Your task to perform on an android device: set the timer Image 0: 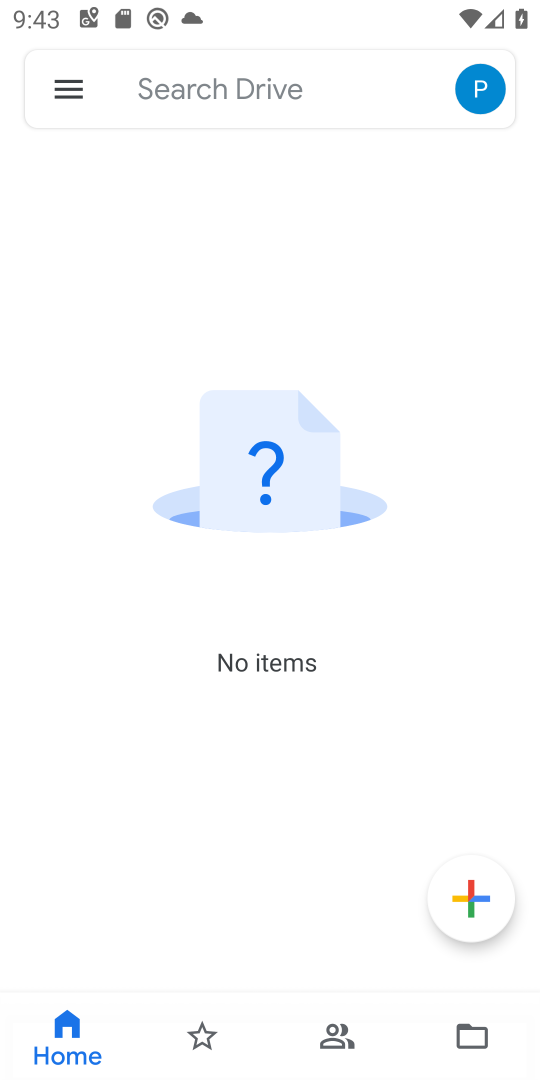
Step 0: press home button
Your task to perform on an android device: set the timer Image 1: 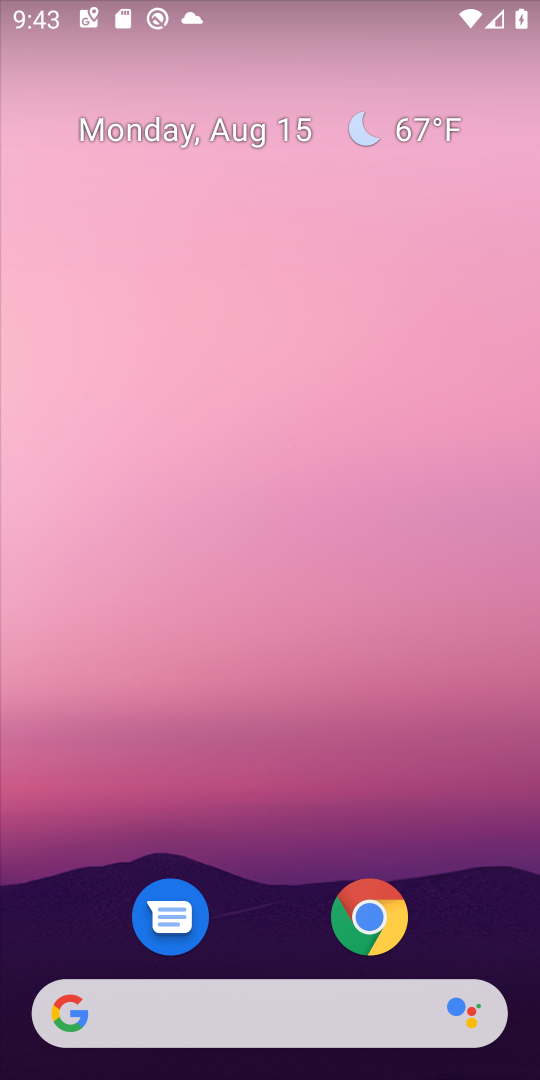
Step 1: drag from (274, 653) to (349, 14)
Your task to perform on an android device: set the timer Image 2: 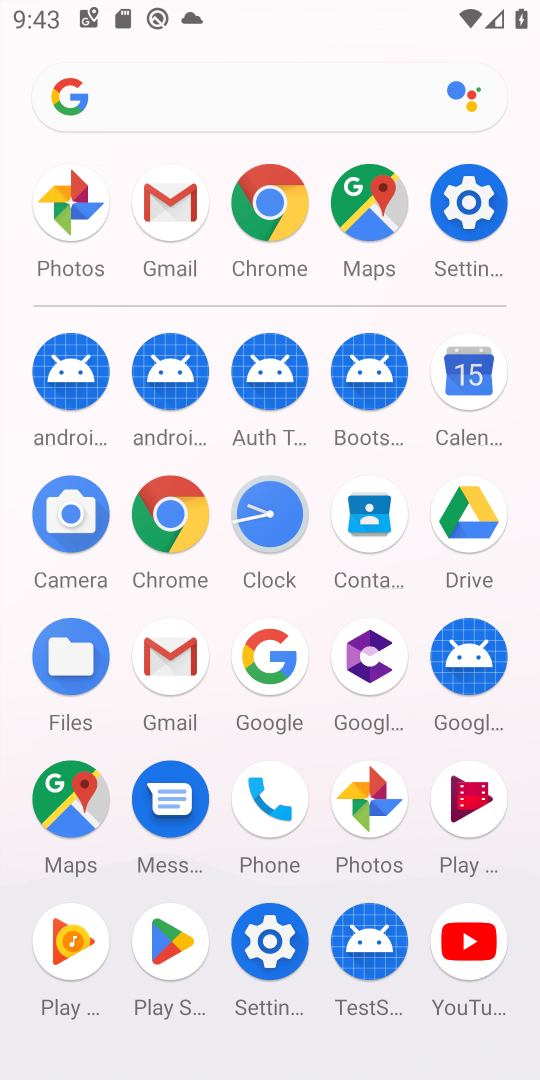
Step 2: click (274, 516)
Your task to perform on an android device: set the timer Image 3: 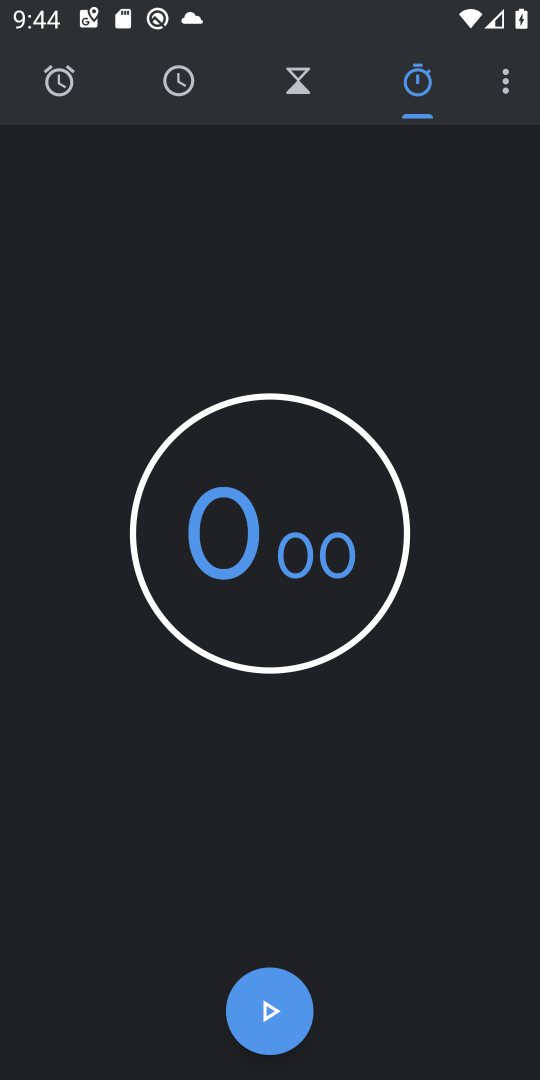
Step 3: click (301, 81)
Your task to perform on an android device: set the timer Image 4: 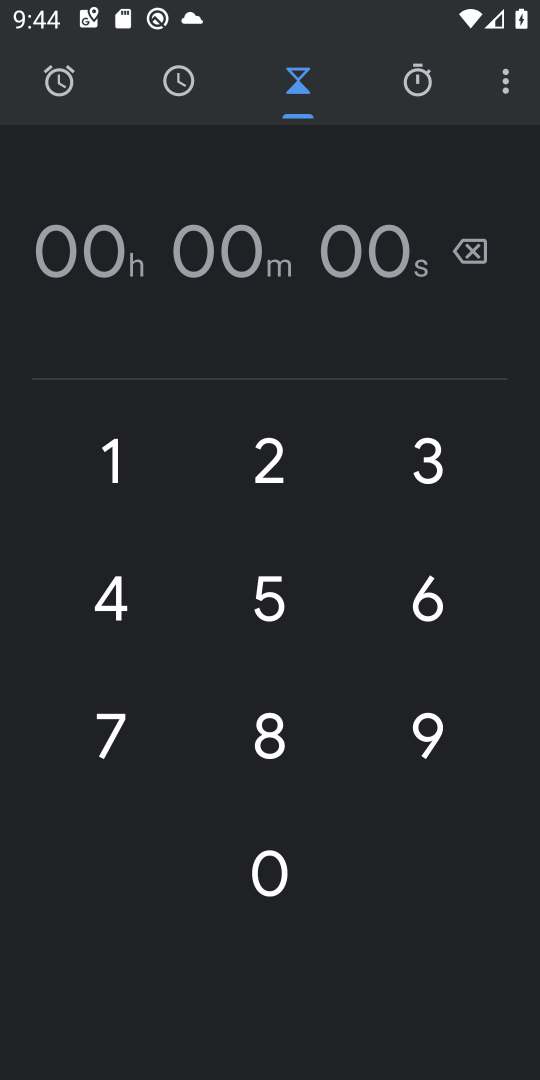
Step 4: task complete